Your task to perform on an android device: check battery use Image 0: 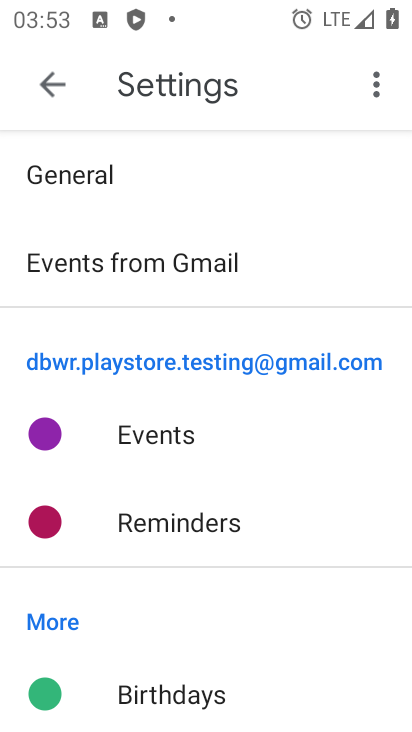
Step 0: press home button
Your task to perform on an android device: check battery use Image 1: 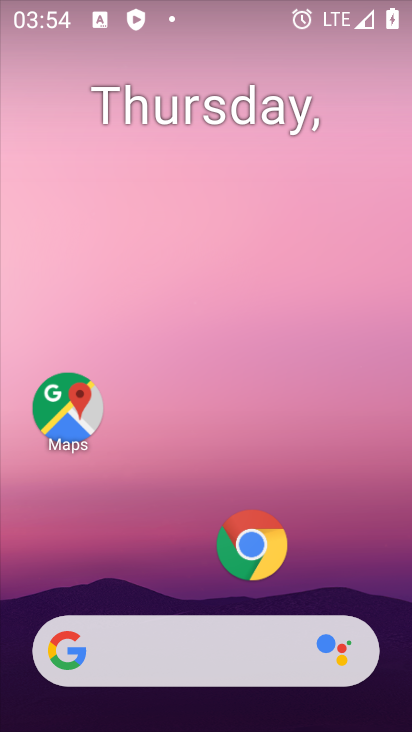
Step 1: drag from (226, 631) to (242, 13)
Your task to perform on an android device: check battery use Image 2: 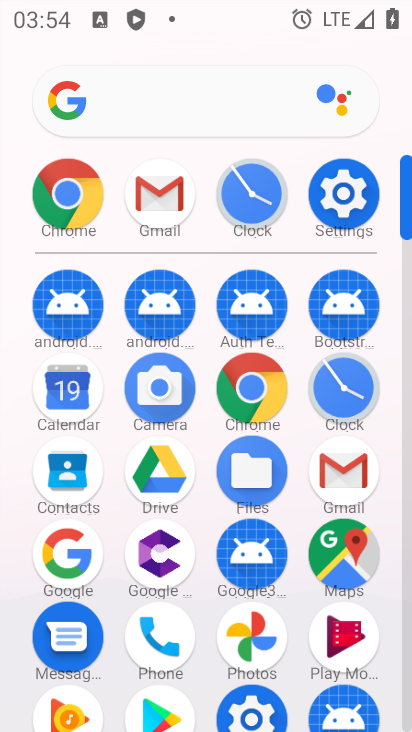
Step 2: click (352, 188)
Your task to perform on an android device: check battery use Image 3: 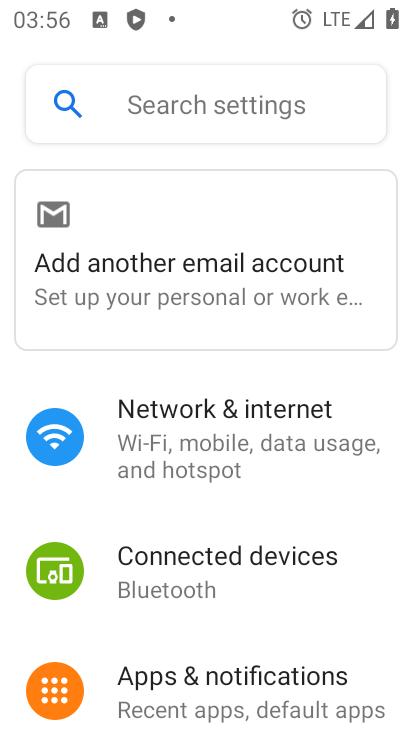
Step 3: drag from (164, 663) to (208, 169)
Your task to perform on an android device: check battery use Image 4: 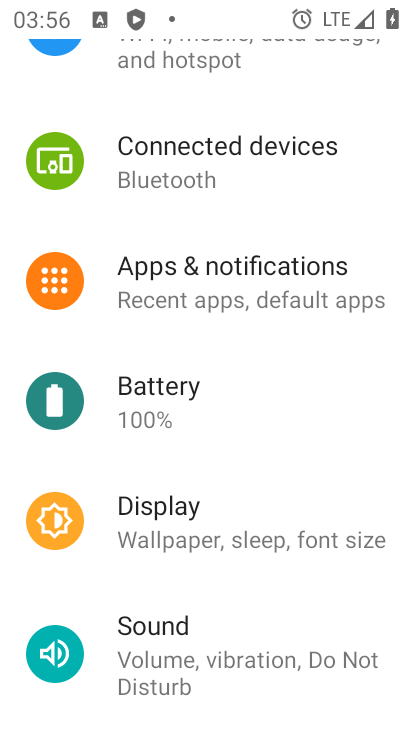
Step 4: click (205, 389)
Your task to perform on an android device: check battery use Image 5: 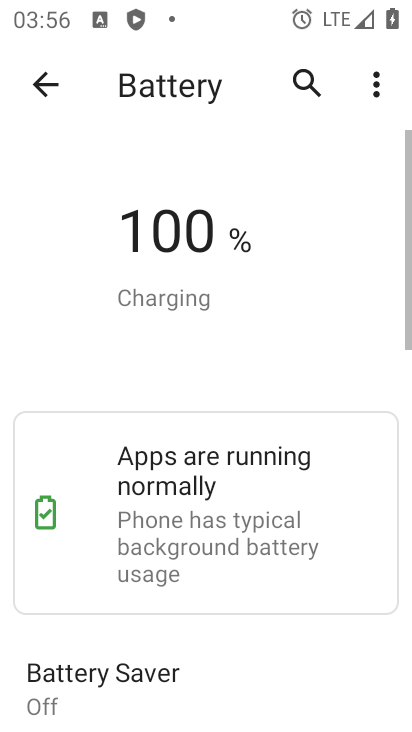
Step 5: task complete